Your task to perform on an android device: Go to network settings Image 0: 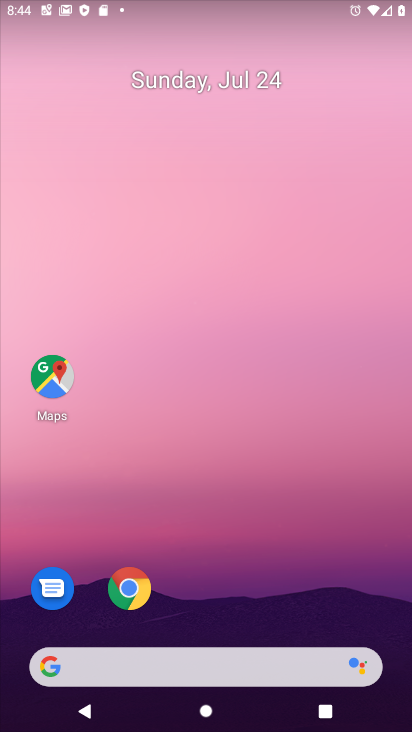
Step 0: press home button
Your task to perform on an android device: Go to network settings Image 1: 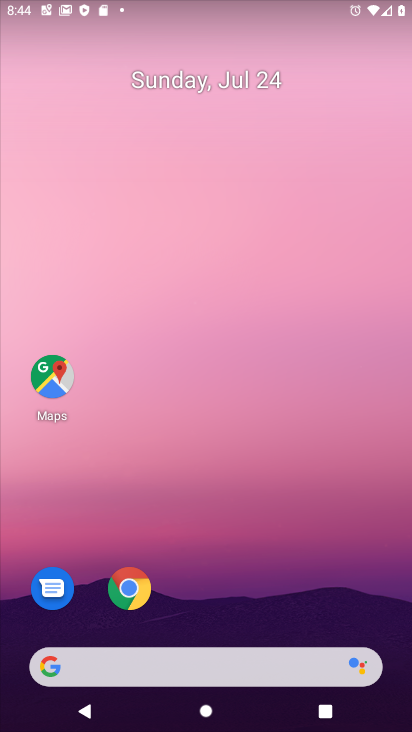
Step 1: drag from (235, 604) to (282, 183)
Your task to perform on an android device: Go to network settings Image 2: 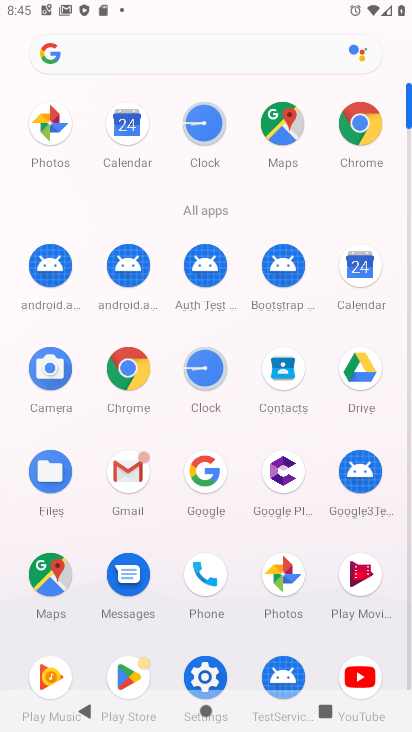
Step 2: click (209, 666)
Your task to perform on an android device: Go to network settings Image 3: 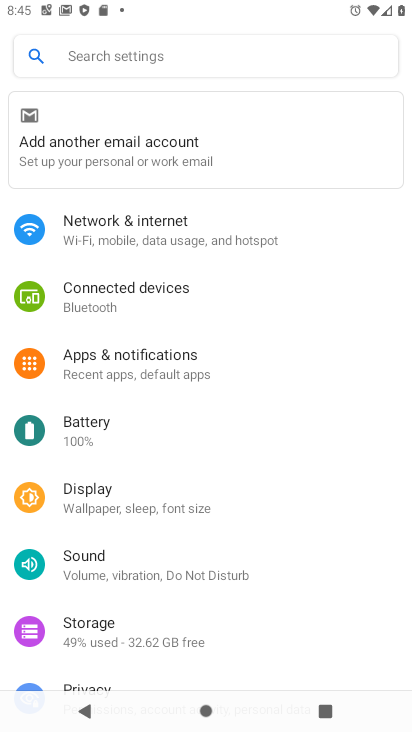
Step 3: click (177, 220)
Your task to perform on an android device: Go to network settings Image 4: 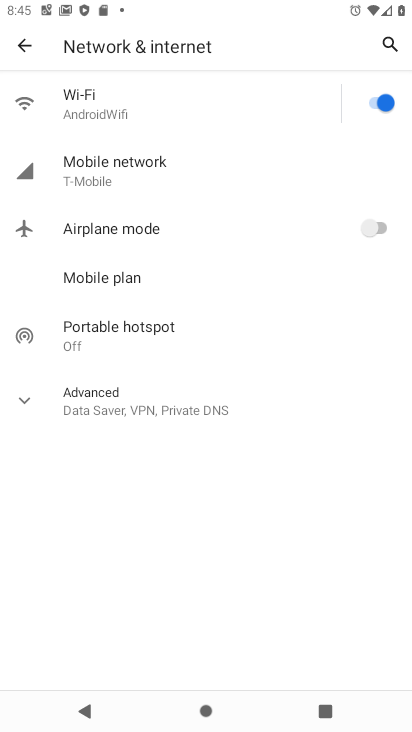
Step 4: click (20, 396)
Your task to perform on an android device: Go to network settings Image 5: 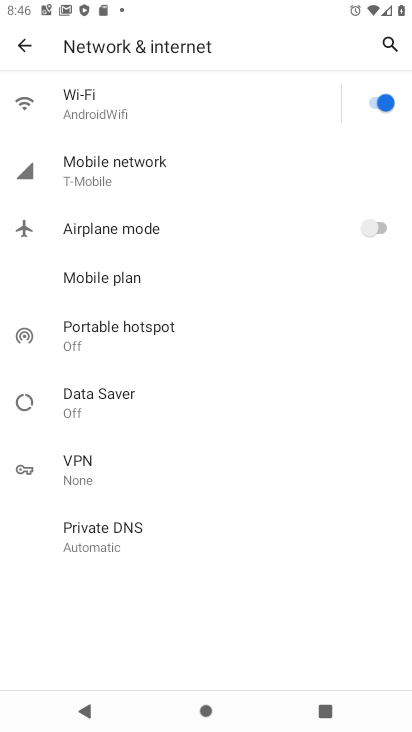
Step 5: task complete